Your task to perform on an android device: create a new album in the google photos Image 0: 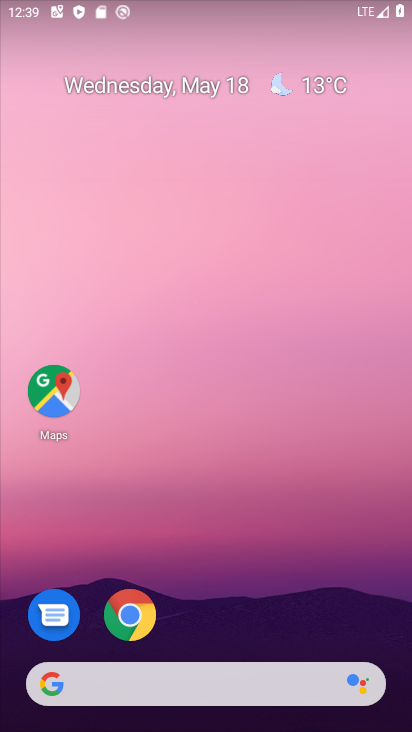
Step 0: drag from (177, 685) to (285, 239)
Your task to perform on an android device: create a new album in the google photos Image 1: 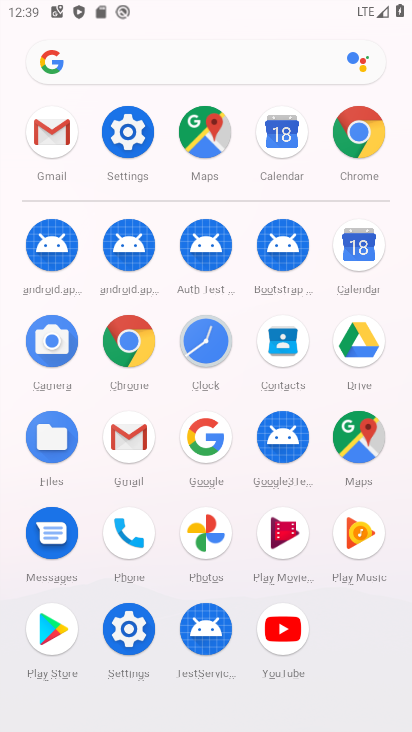
Step 1: click (208, 534)
Your task to perform on an android device: create a new album in the google photos Image 2: 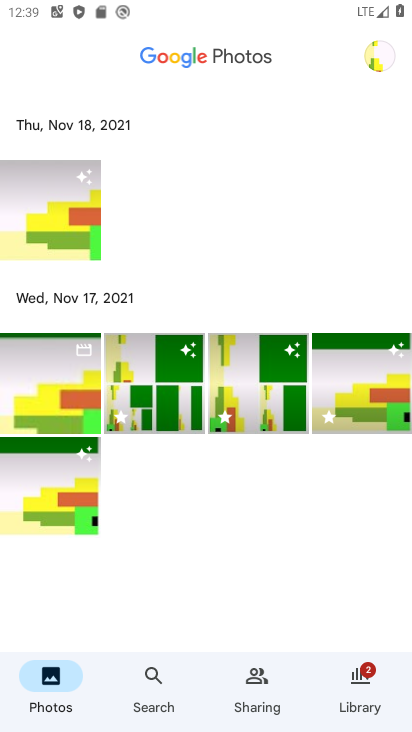
Step 2: click (155, 689)
Your task to perform on an android device: create a new album in the google photos Image 3: 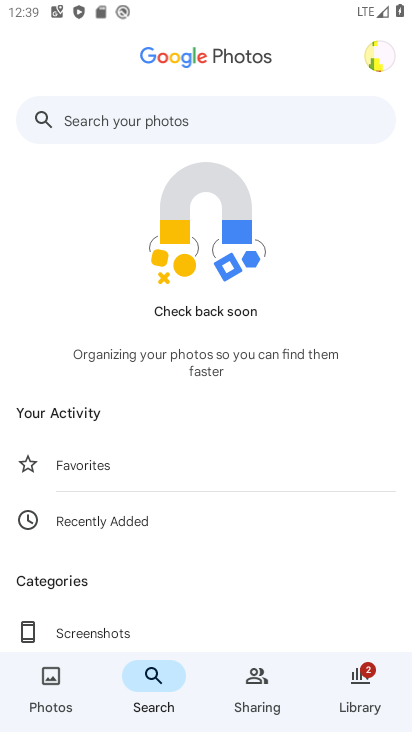
Step 3: click (358, 683)
Your task to perform on an android device: create a new album in the google photos Image 4: 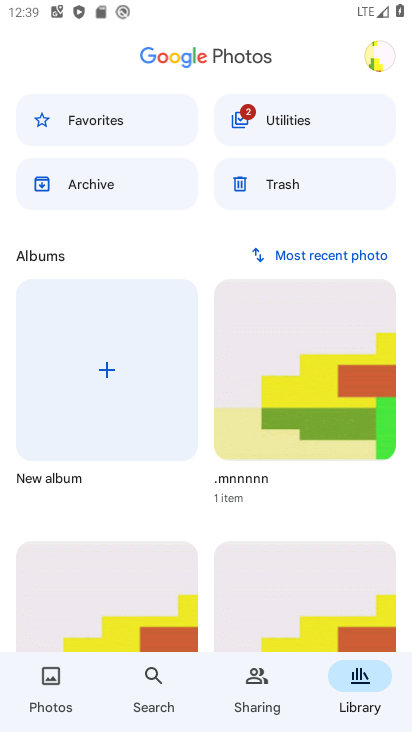
Step 4: click (83, 359)
Your task to perform on an android device: create a new album in the google photos Image 5: 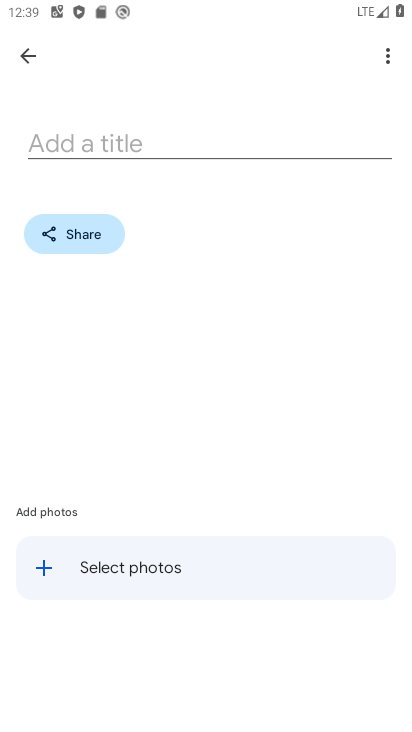
Step 5: click (115, 556)
Your task to perform on an android device: create a new album in the google photos Image 6: 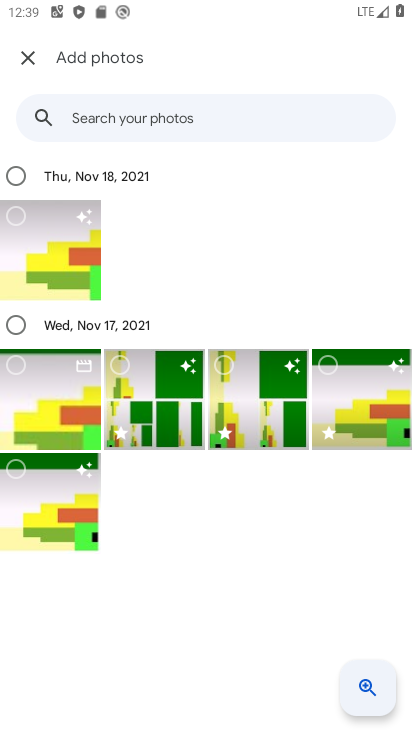
Step 6: click (80, 388)
Your task to perform on an android device: create a new album in the google photos Image 7: 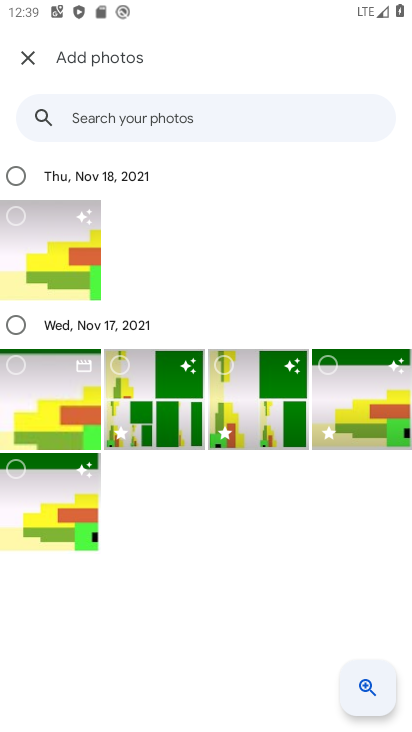
Step 7: click (156, 401)
Your task to perform on an android device: create a new album in the google photos Image 8: 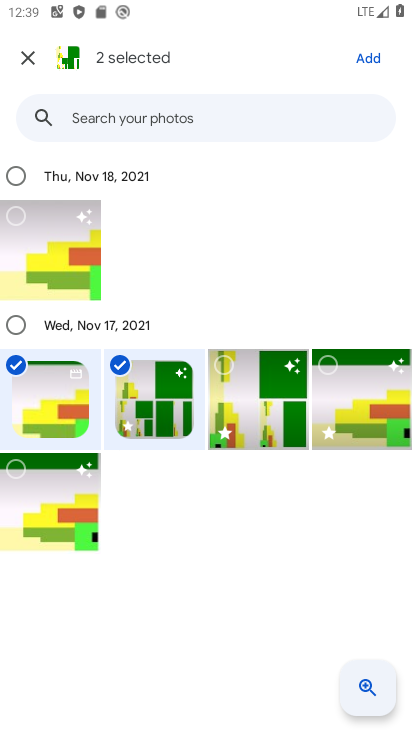
Step 8: click (327, 385)
Your task to perform on an android device: create a new album in the google photos Image 9: 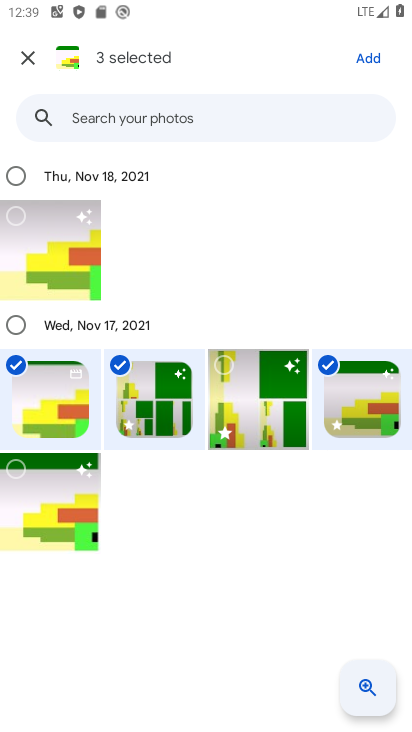
Step 9: click (68, 508)
Your task to perform on an android device: create a new album in the google photos Image 10: 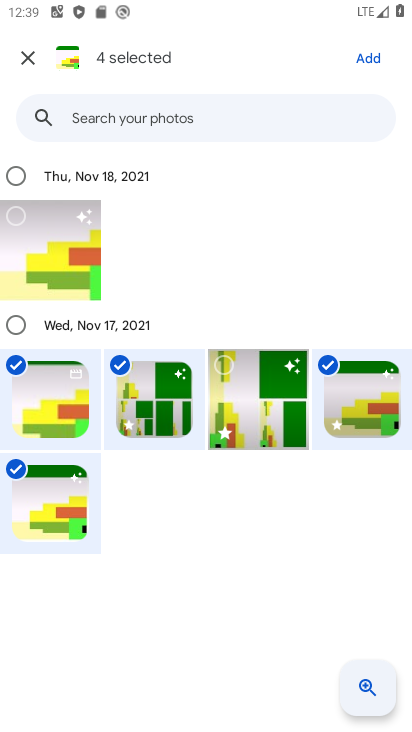
Step 10: click (372, 59)
Your task to perform on an android device: create a new album in the google photos Image 11: 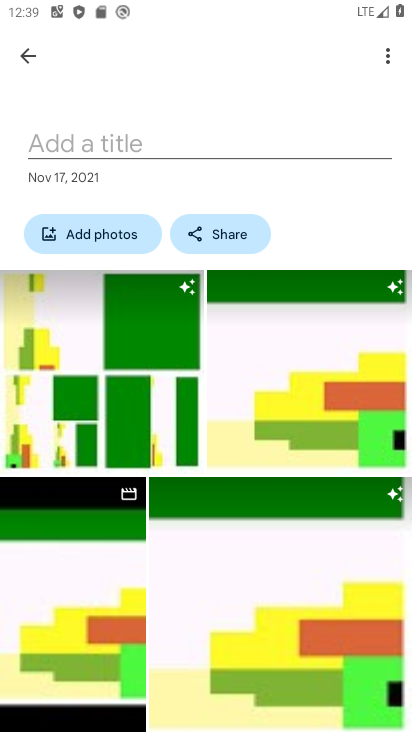
Step 11: task complete